Your task to perform on an android device: Go to battery settings Image 0: 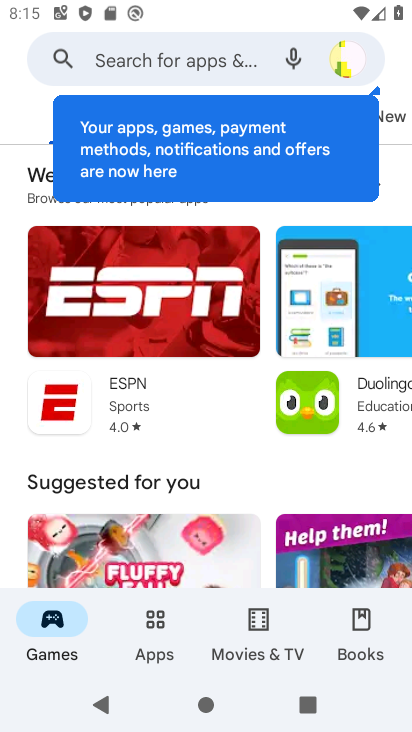
Step 0: press home button
Your task to perform on an android device: Go to battery settings Image 1: 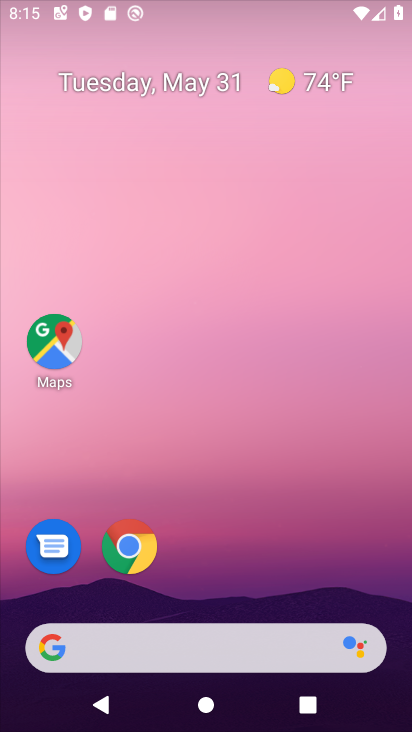
Step 1: drag from (194, 574) to (337, 105)
Your task to perform on an android device: Go to battery settings Image 2: 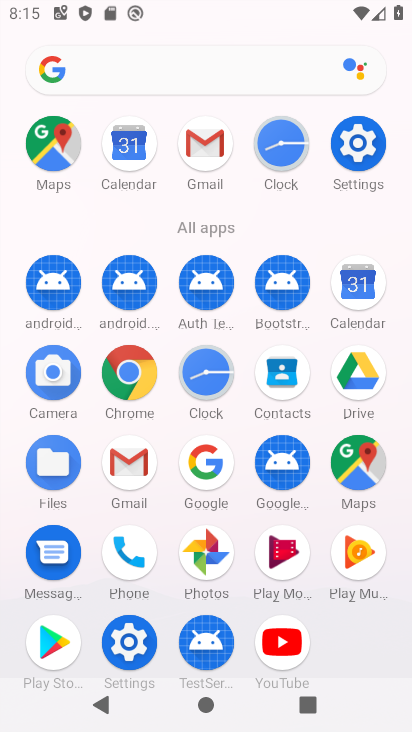
Step 2: click (359, 145)
Your task to perform on an android device: Go to battery settings Image 3: 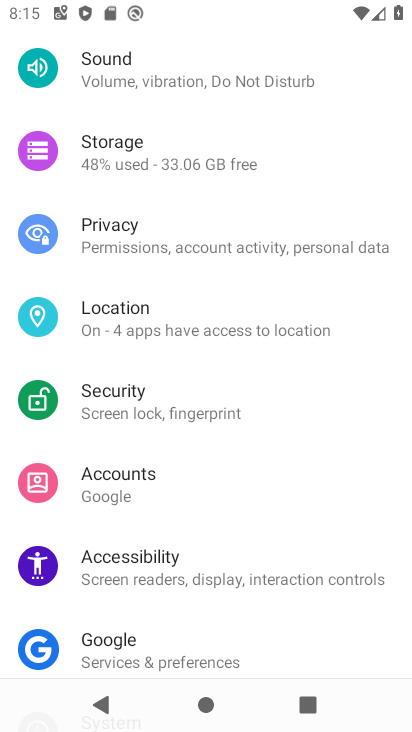
Step 3: drag from (199, 213) to (167, 442)
Your task to perform on an android device: Go to battery settings Image 4: 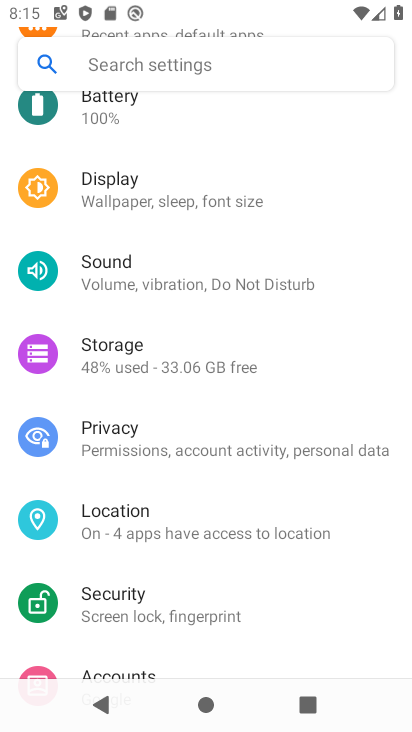
Step 4: drag from (127, 117) to (128, 184)
Your task to perform on an android device: Go to battery settings Image 5: 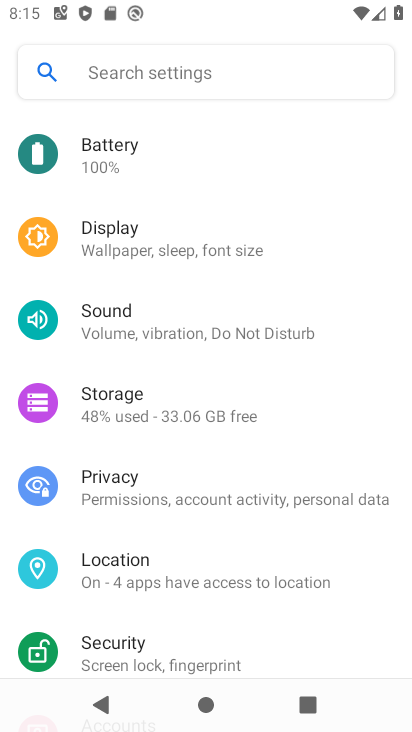
Step 5: click (121, 143)
Your task to perform on an android device: Go to battery settings Image 6: 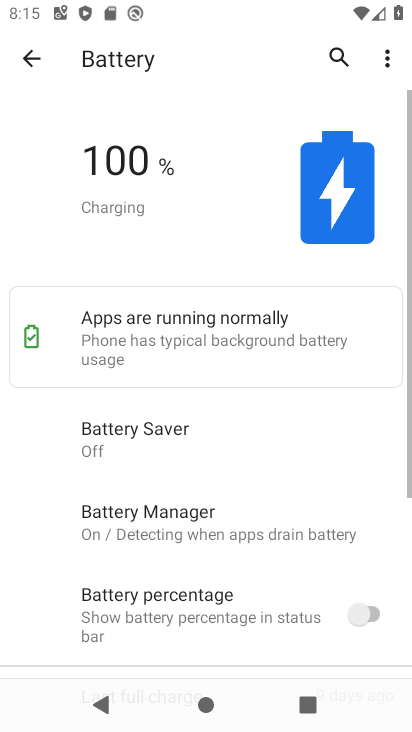
Step 6: task complete